Your task to perform on an android device: Show me recent news Image 0: 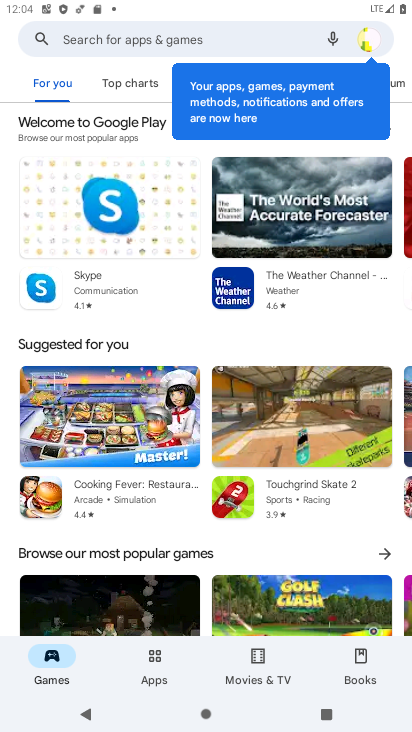
Step 0: press home button
Your task to perform on an android device: Show me recent news Image 1: 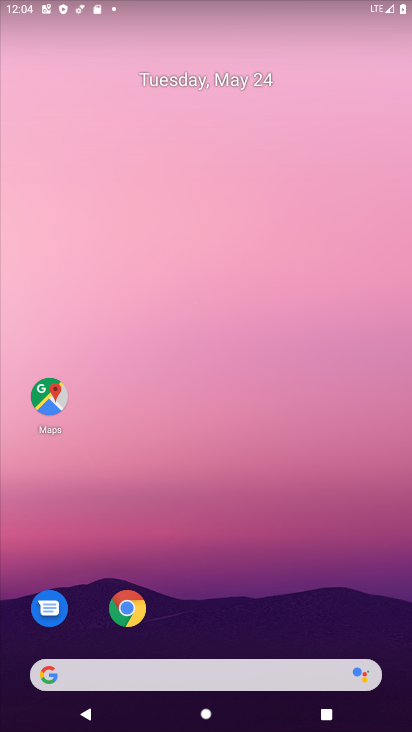
Step 1: task complete